Your task to perform on an android device: Open calendar and show me the fourth week of next month Image 0: 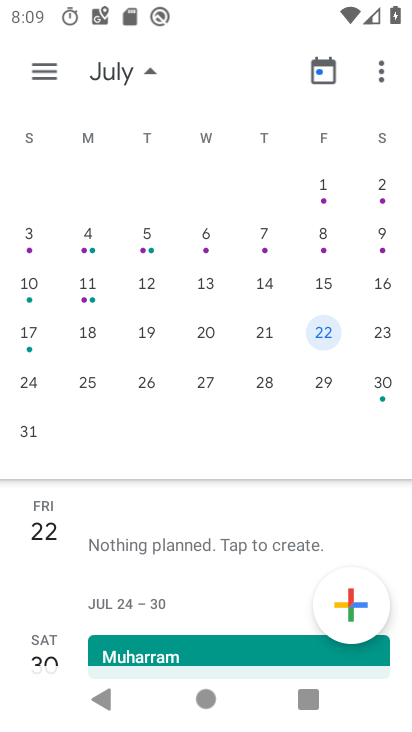
Step 0: press home button
Your task to perform on an android device: Open calendar and show me the fourth week of next month Image 1: 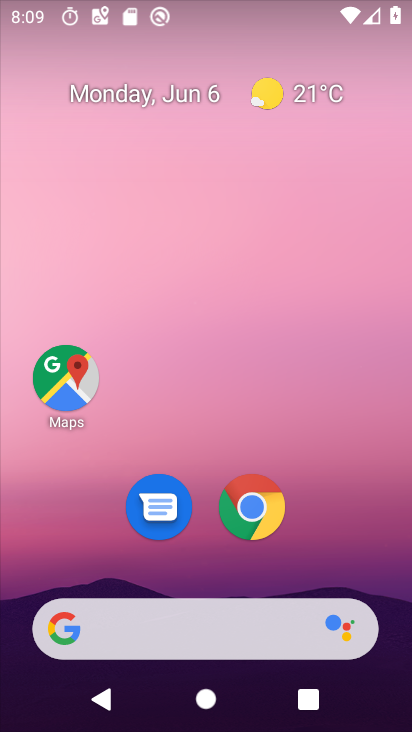
Step 1: drag from (315, 544) to (192, 7)
Your task to perform on an android device: Open calendar and show me the fourth week of next month Image 2: 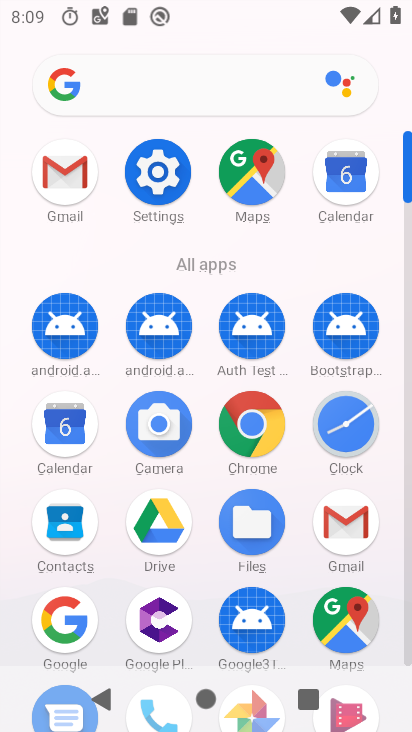
Step 2: click (76, 430)
Your task to perform on an android device: Open calendar and show me the fourth week of next month Image 3: 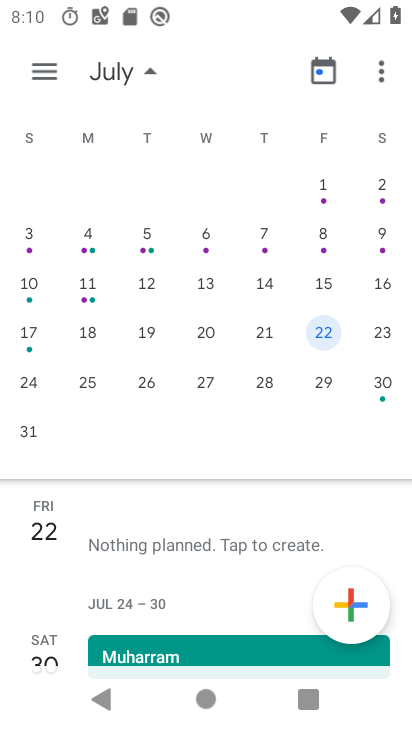
Step 3: task complete